Your task to perform on an android device: Open the web browser Image 0: 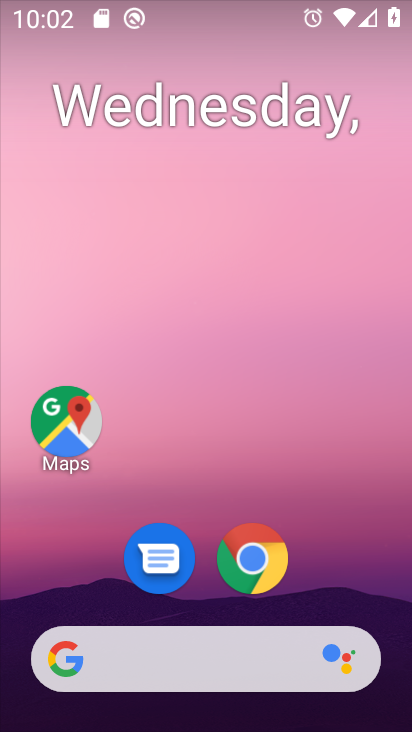
Step 0: drag from (357, 514) to (358, 171)
Your task to perform on an android device: Open the web browser Image 1: 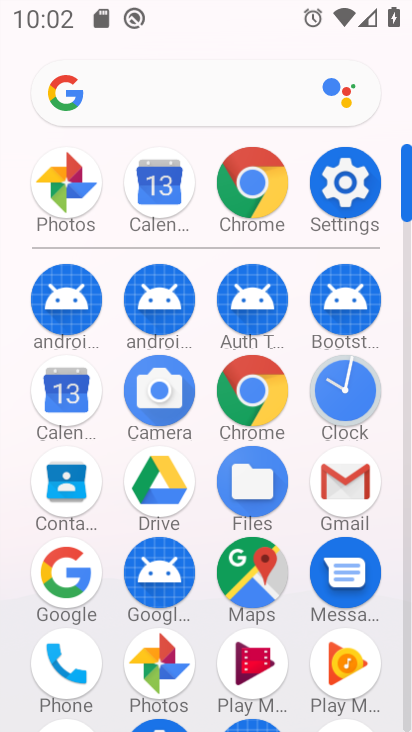
Step 1: click (260, 405)
Your task to perform on an android device: Open the web browser Image 2: 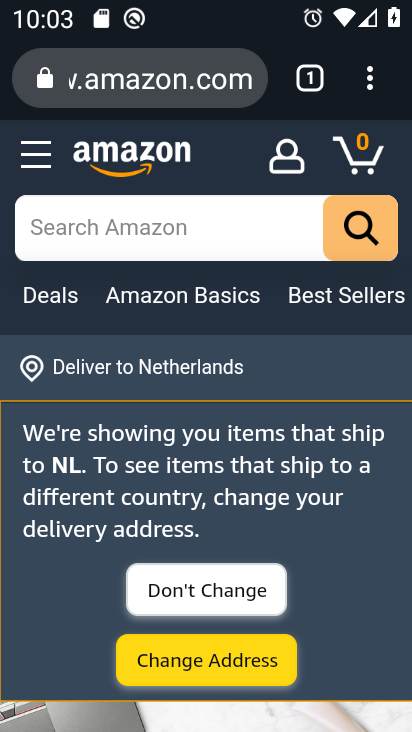
Step 2: task complete